Your task to perform on an android device: check battery use Image 0: 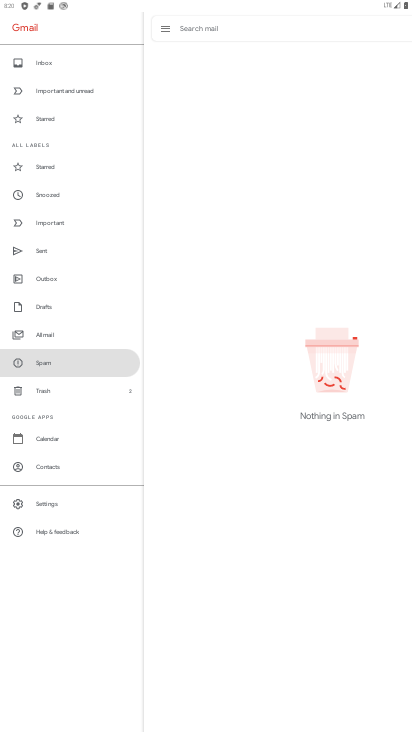
Step 0: press home button
Your task to perform on an android device: check battery use Image 1: 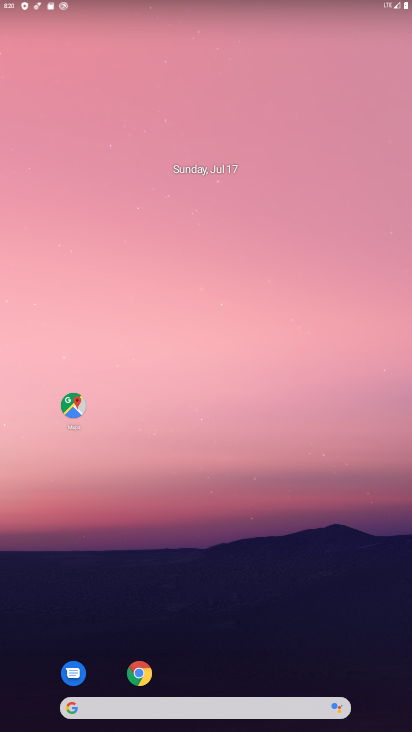
Step 1: drag from (311, 613) to (243, 109)
Your task to perform on an android device: check battery use Image 2: 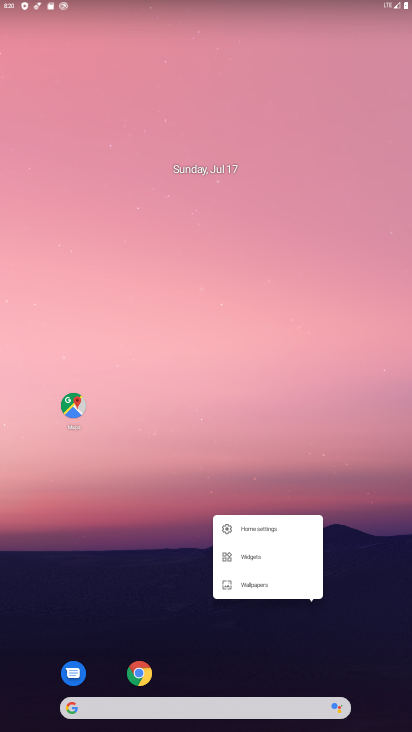
Step 2: click (393, 527)
Your task to perform on an android device: check battery use Image 3: 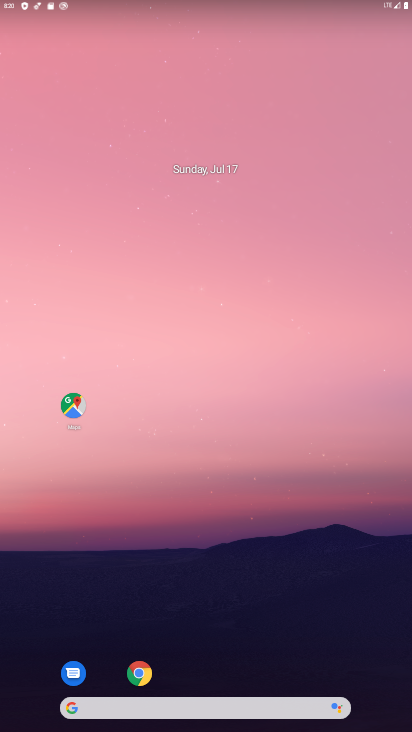
Step 3: drag from (362, 658) to (286, 26)
Your task to perform on an android device: check battery use Image 4: 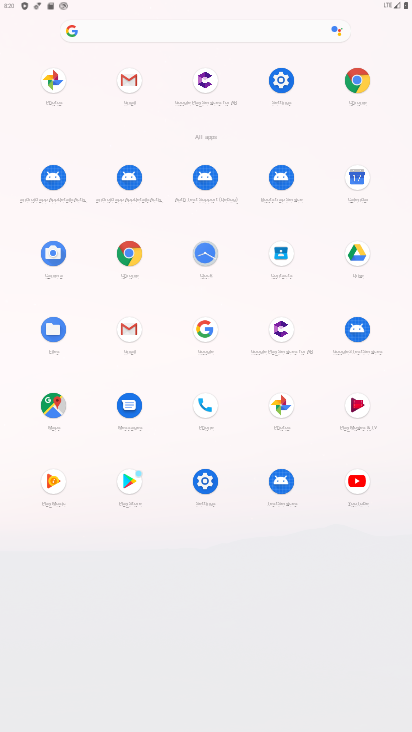
Step 4: click (283, 82)
Your task to perform on an android device: check battery use Image 5: 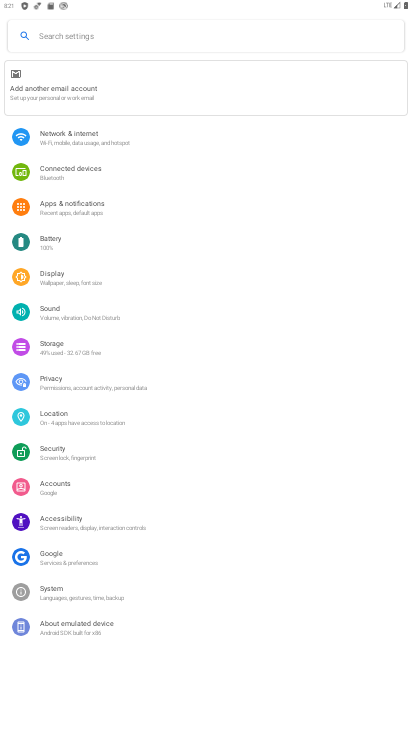
Step 5: click (59, 237)
Your task to perform on an android device: check battery use Image 6: 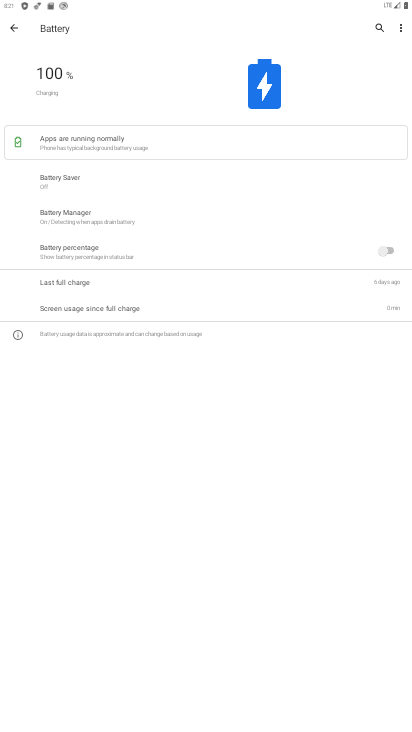
Step 6: click (401, 27)
Your task to perform on an android device: check battery use Image 7: 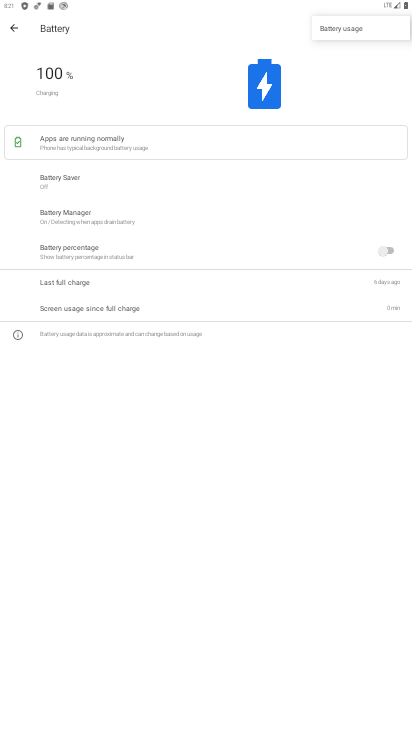
Step 7: click (341, 28)
Your task to perform on an android device: check battery use Image 8: 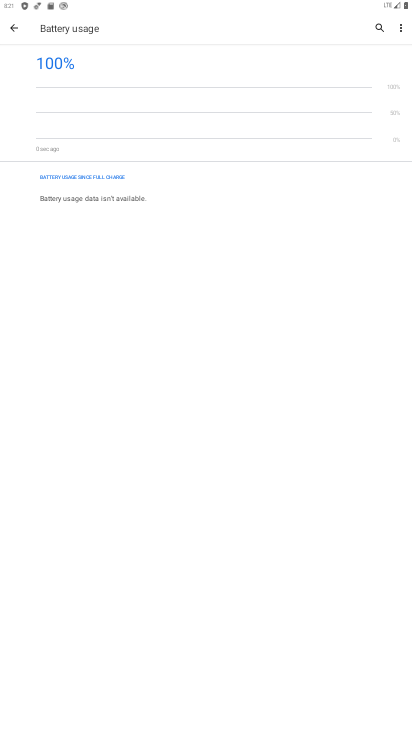
Step 8: task complete